Your task to perform on an android device: turn on showing notifications on the lock screen Image 0: 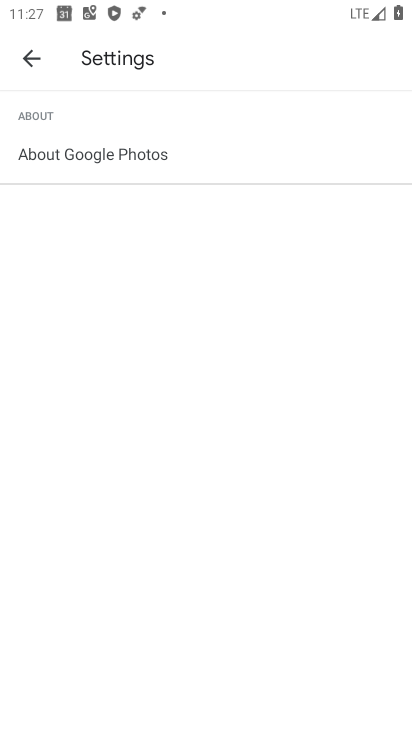
Step 0: click (290, 485)
Your task to perform on an android device: turn on showing notifications on the lock screen Image 1: 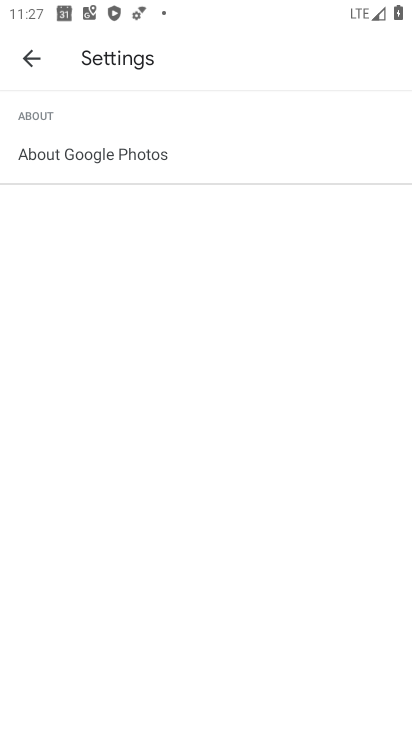
Step 1: press home button
Your task to perform on an android device: turn on showing notifications on the lock screen Image 2: 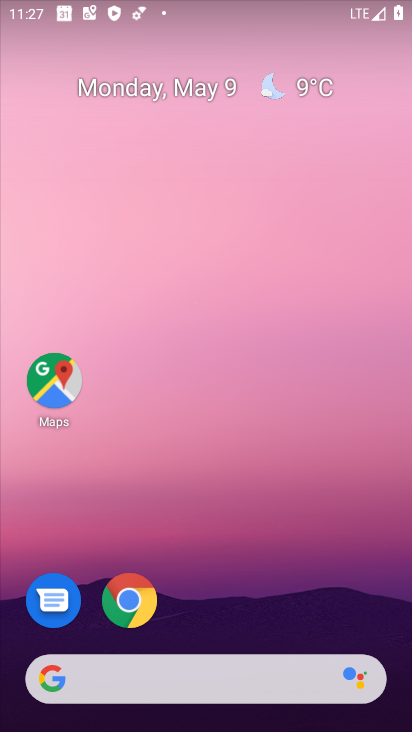
Step 2: drag from (325, 618) to (356, 190)
Your task to perform on an android device: turn on showing notifications on the lock screen Image 3: 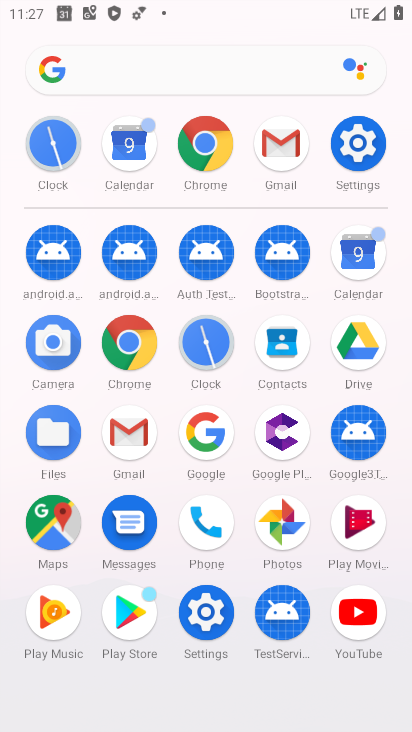
Step 3: click (350, 141)
Your task to perform on an android device: turn on showing notifications on the lock screen Image 4: 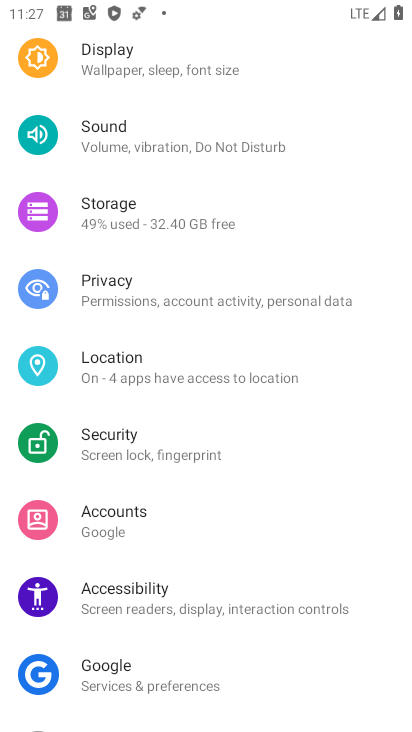
Step 4: drag from (270, 662) to (256, 323)
Your task to perform on an android device: turn on showing notifications on the lock screen Image 5: 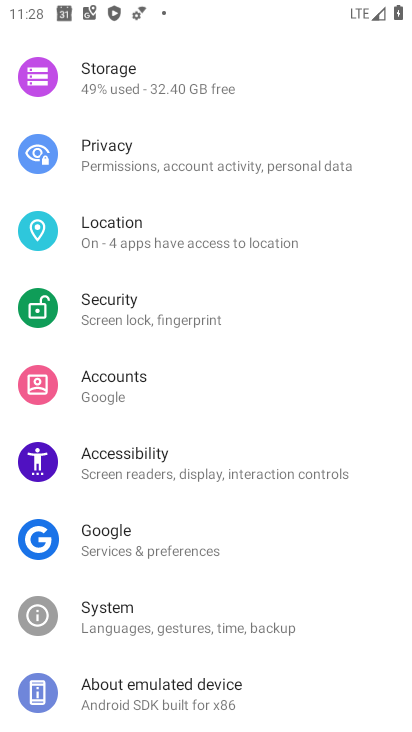
Step 5: drag from (235, 93) to (280, 568)
Your task to perform on an android device: turn on showing notifications on the lock screen Image 6: 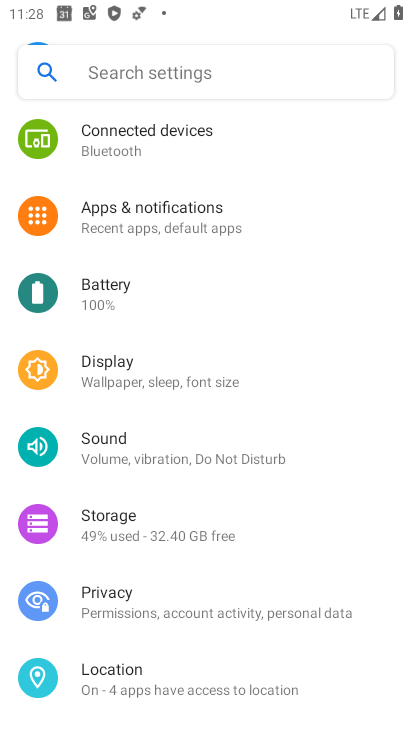
Step 6: click (256, 228)
Your task to perform on an android device: turn on showing notifications on the lock screen Image 7: 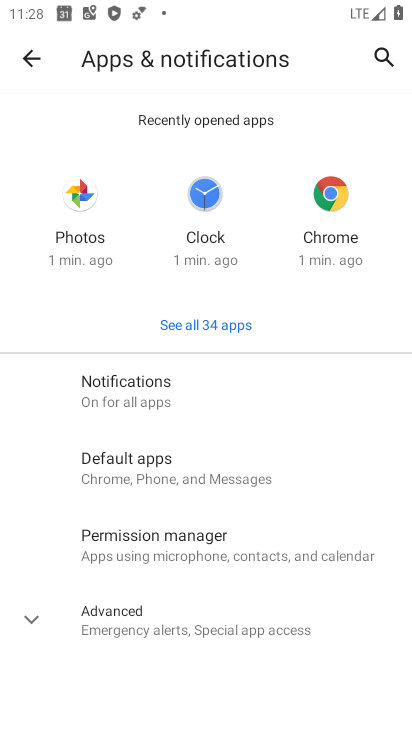
Step 7: click (202, 402)
Your task to perform on an android device: turn on showing notifications on the lock screen Image 8: 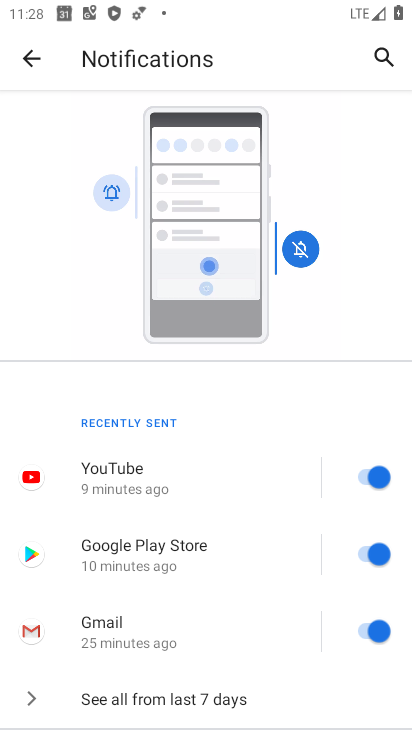
Step 8: drag from (255, 689) to (290, 362)
Your task to perform on an android device: turn on showing notifications on the lock screen Image 9: 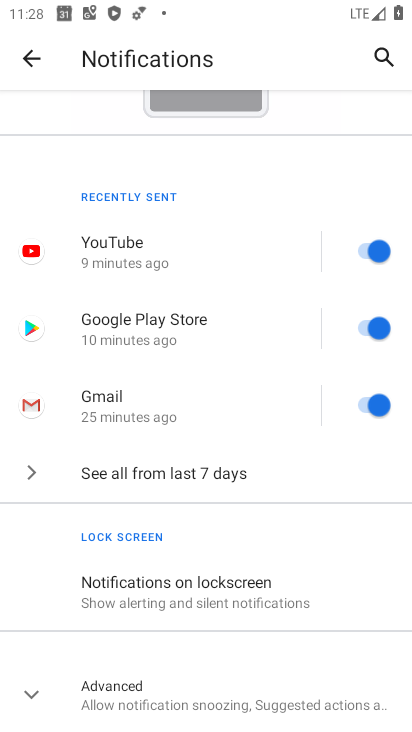
Step 9: click (262, 585)
Your task to perform on an android device: turn on showing notifications on the lock screen Image 10: 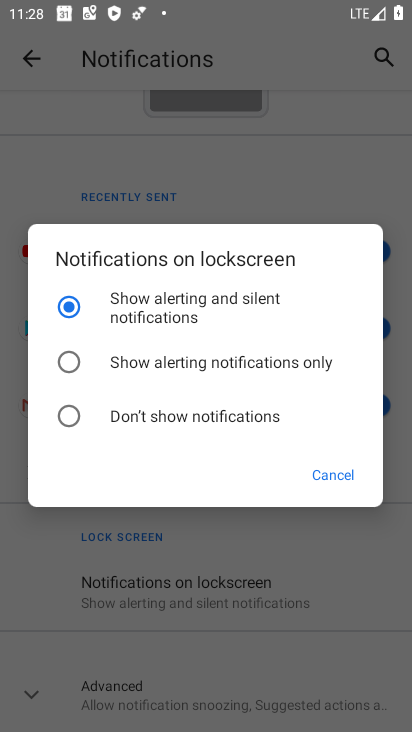
Step 10: task complete